Your task to perform on an android device: change timer sound Image 0: 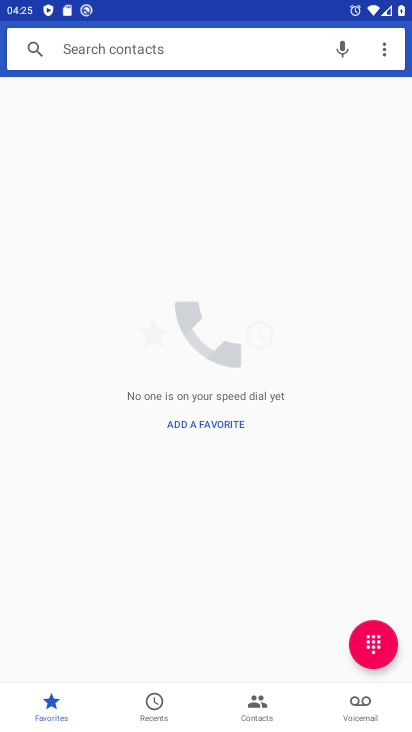
Step 0: press home button
Your task to perform on an android device: change timer sound Image 1: 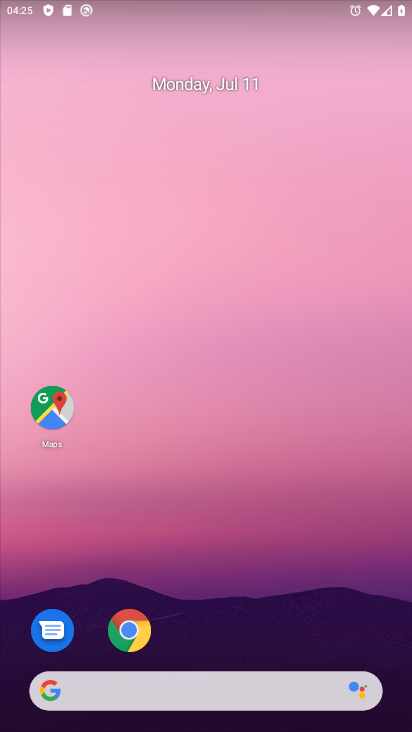
Step 1: drag from (218, 659) to (296, 52)
Your task to perform on an android device: change timer sound Image 2: 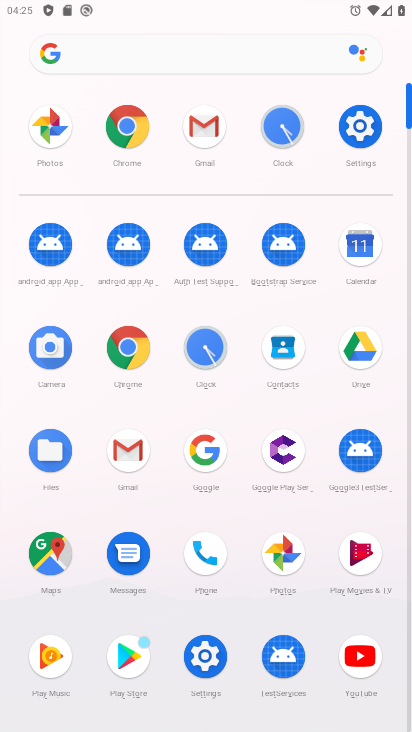
Step 2: click (202, 337)
Your task to perform on an android device: change timer sound Image 3: 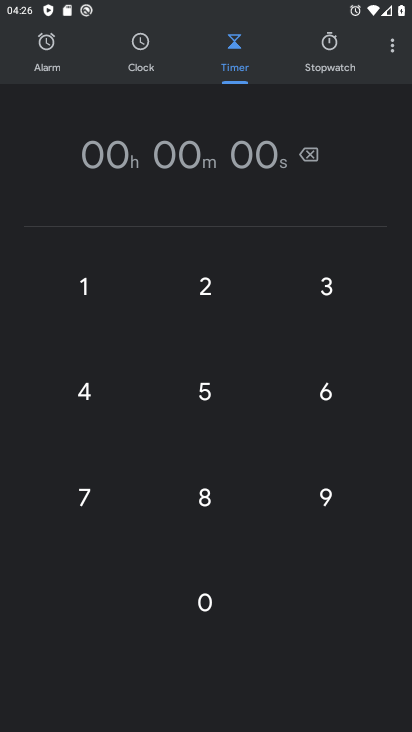
Step 3: click (390, 45)
Your task to perform on an android device: change timer sound Image 4: 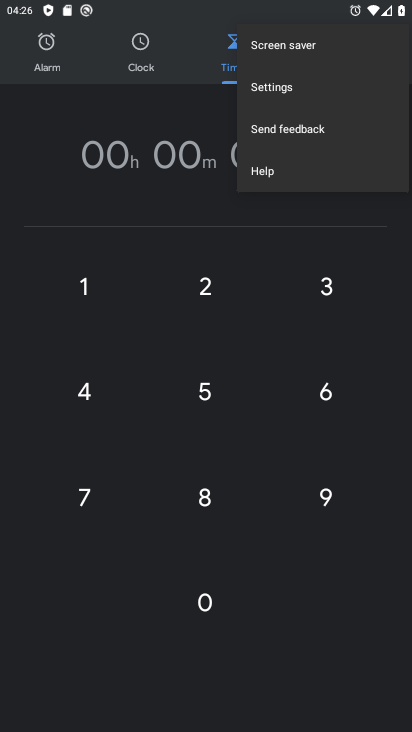
Step 4: click (305, 90)
Your task to perform on an android device: change timer sound Image 5: 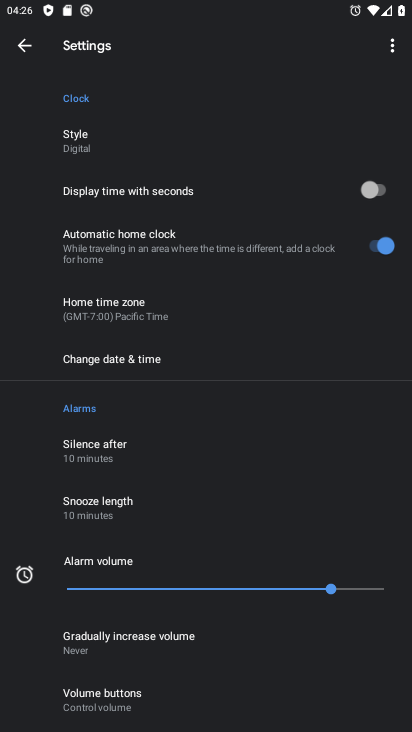
Step 5: drag from (213, 670) to (204, 241)
Your task to perform on an android device: change timer sound Image 6: 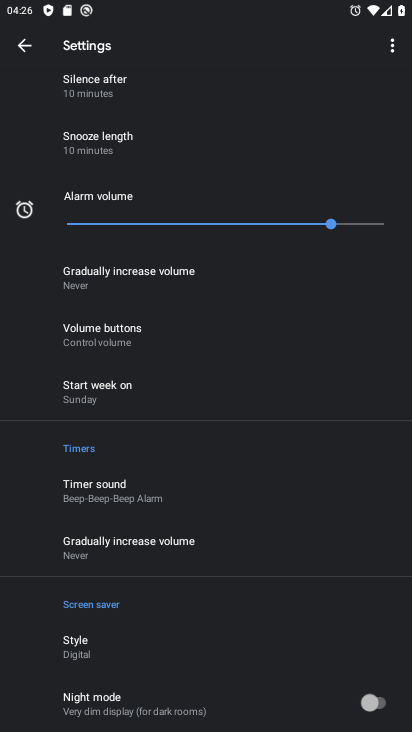
Step 6: click (151, 494)
Your task to perform on an android device: change timer sound Image 7: 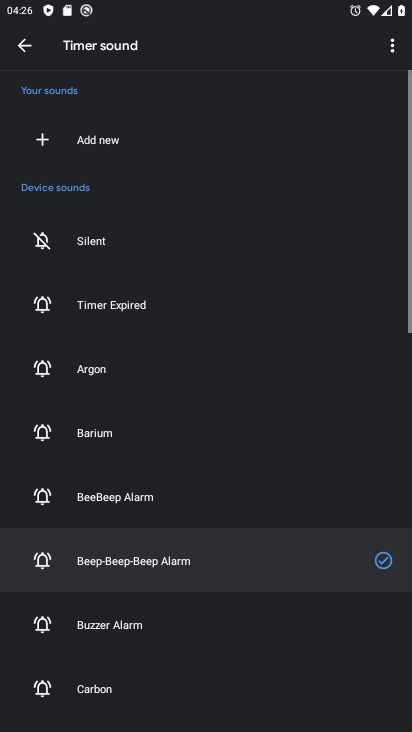
Step 7: drag from (171, 607) to (205, 142)
Your task to perform on an android device: change timer sound Image 8: 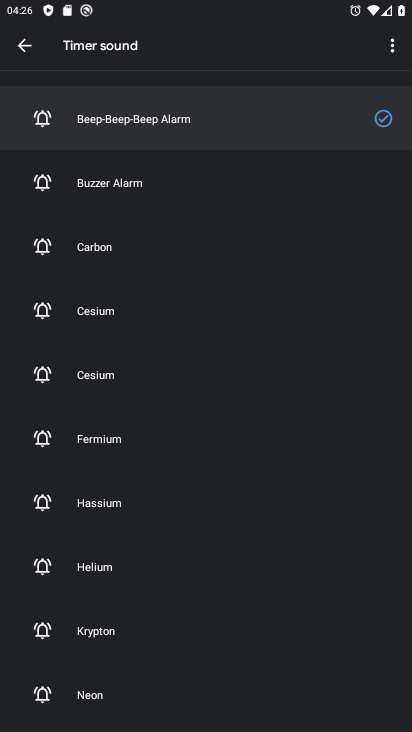
Step 8: click (124, 574)
Your task to perform on an android device: change timer sound Image 9: 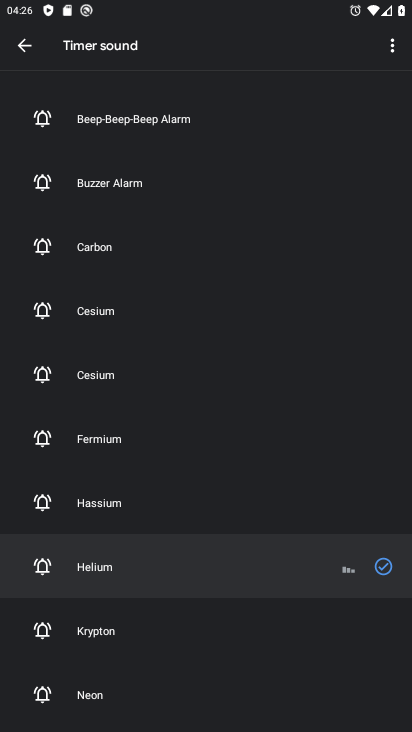
Step 9: task complete